Your task to perform on an android device: move a message to another label in the gmail app Image 0: 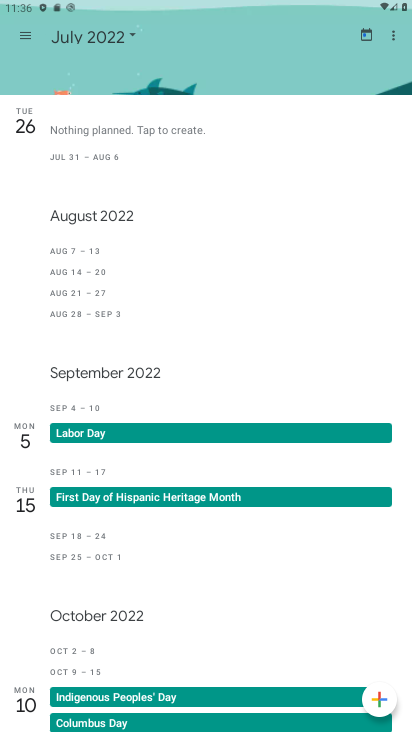
Step 0: press home button
Your task to perform on an android device: move a message to another label in the gmail app Image 1: 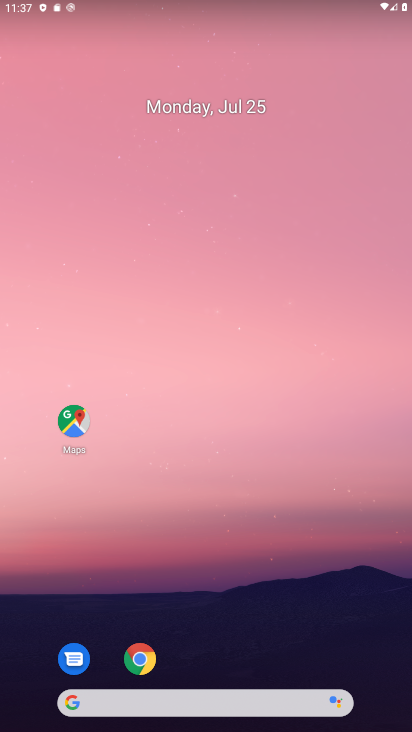
Step 1: drag from (275, 639) to (244, 123)
Your task to perform on an android device: move a message to another label in the gmail app Image 2: 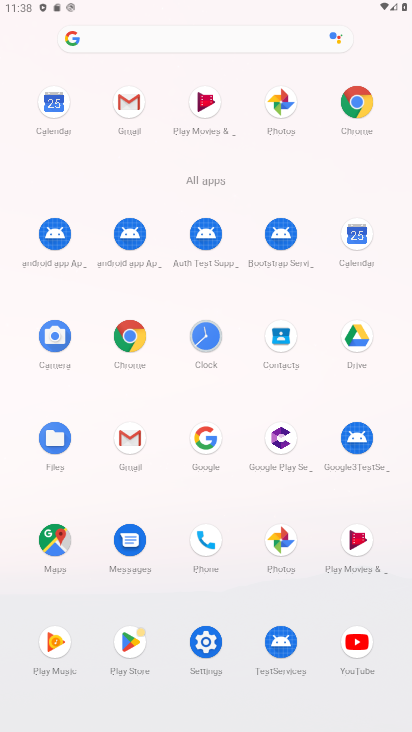
Step 2: click (124, 125)
Your task to perform on an android device: move a message to another label in the gmail app Image 3: 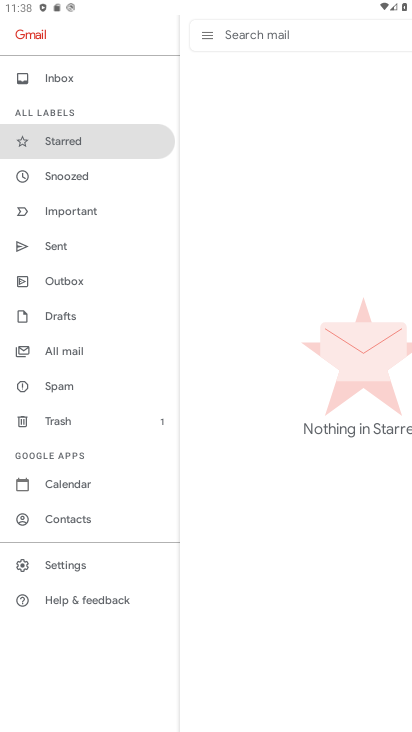
Step 3: task complete